Your task to perform on an android device: toggle pop-ups in chrome Image 0: 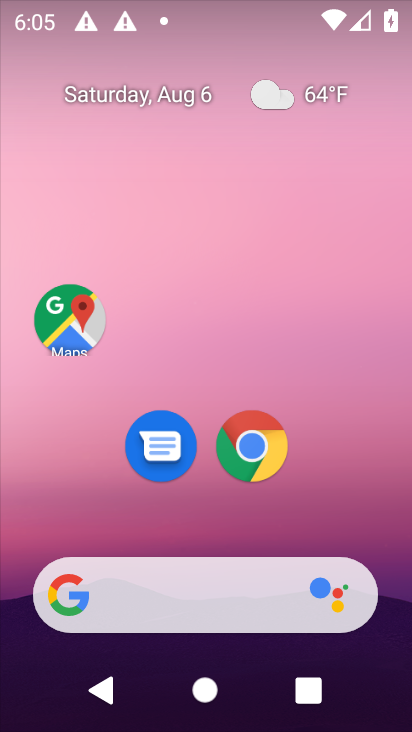
Step 0: click (255, 453)
Your task to perform on an android device: toggle pop-ups in chrome Image 1: 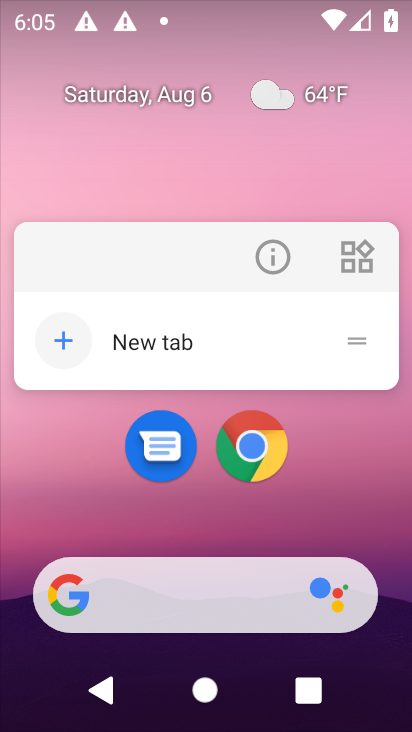
Step 1: click (258, 451)
Your task to perform on an android device: toggle pop-ups in chrome Image 2: 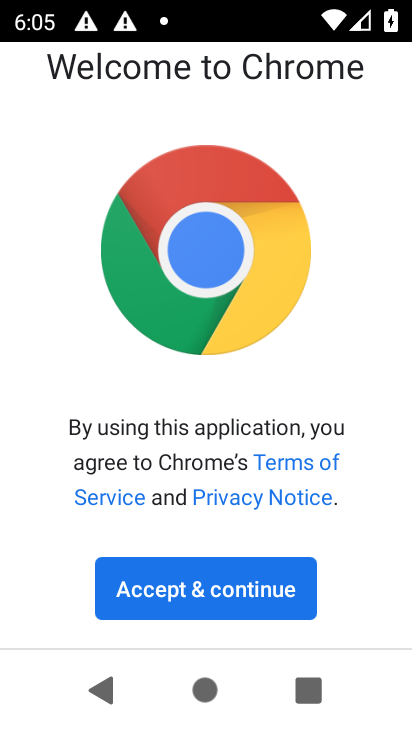
Step 2: click (193, 595)
Your task to perform on an android device: toggle pop-ups in chrome Image 3: 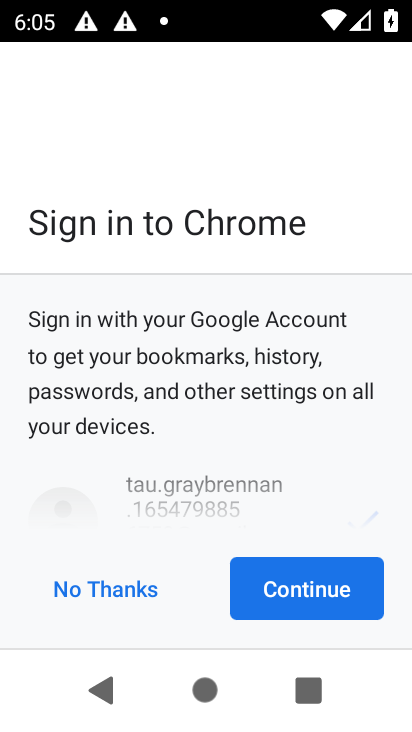
Step 3: click (293, 598)
Your task to perform on an android device: toggle pop-ups in chrome Image 4: 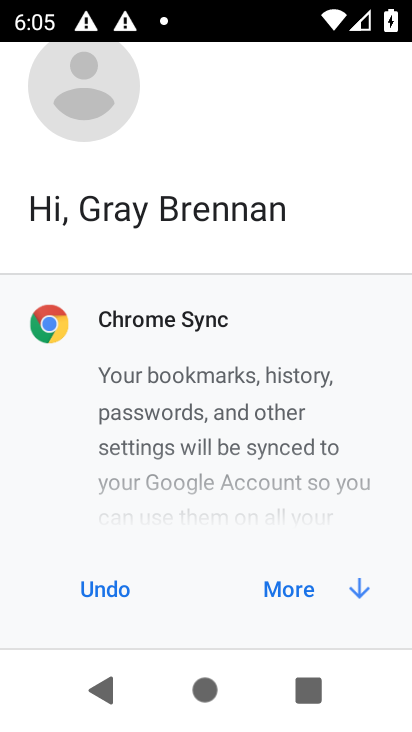
Step 4: click (300, 588)
Your task to perform on an android device: toggle pop-ups in chrome Image 5: 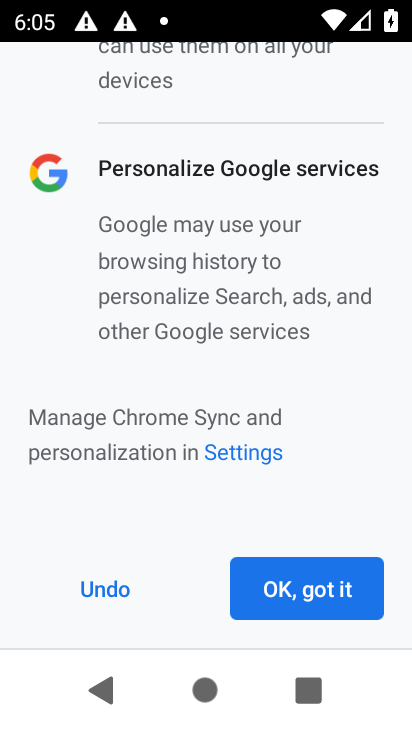
Step 5: click (279, 600)
Your task to perform on an android device: toggle pop-ups in chrome Image 6: 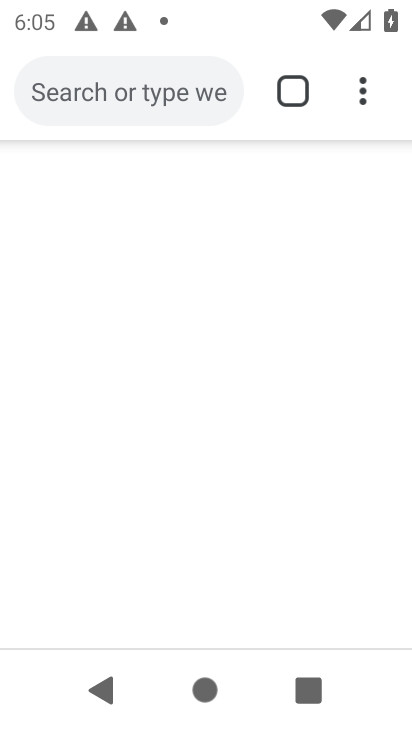
Step 6: drag from (360, 79) to (114, 468)
Your task to perform on an android device: toggle pop-ups in chrome Image 7: 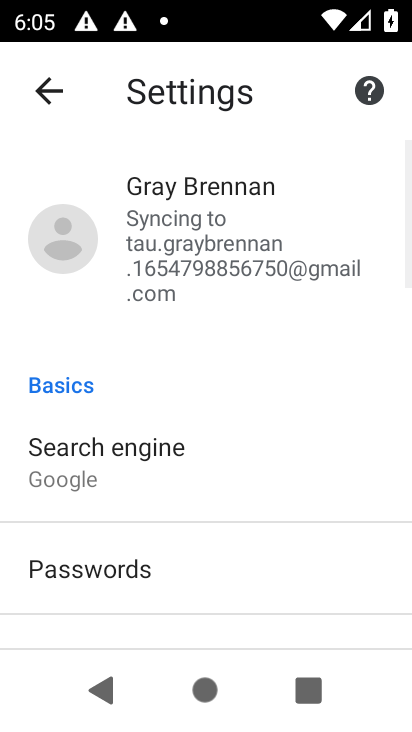
Step 7: drag from (186, 477) to (274, 80)
Your task to perform on an android device: toggle pop-ups in chrome Image 8: 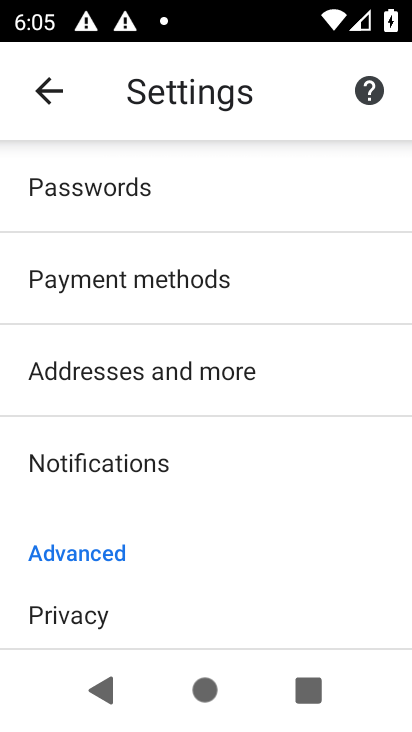
Step 8: drag from (152, 546) to (276, 100)
Your task to perform on an android device: toggle pop-ups in chrome Image 9: 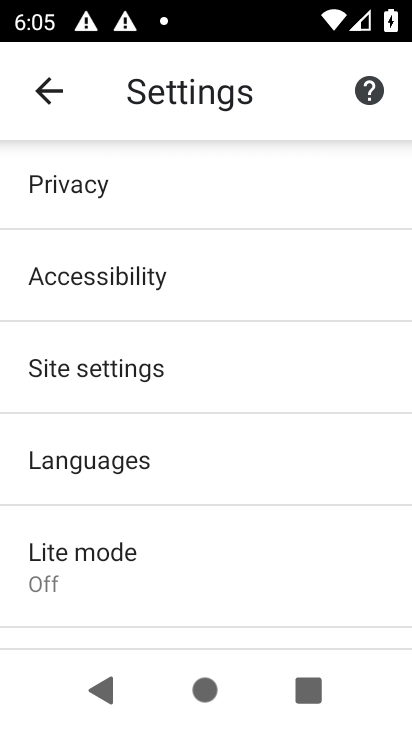
Step 9: click (125, 372)
Your task to perform on an android device: toggle pop-ups in chrome Image 10: 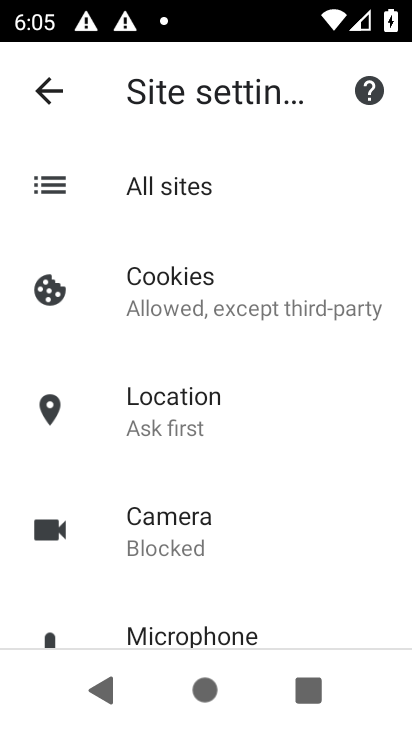
Step 10: drag from (181, 570) to (287, 56)
Your task to perform on an android device: toggle pop-ups in chrome Image 11: 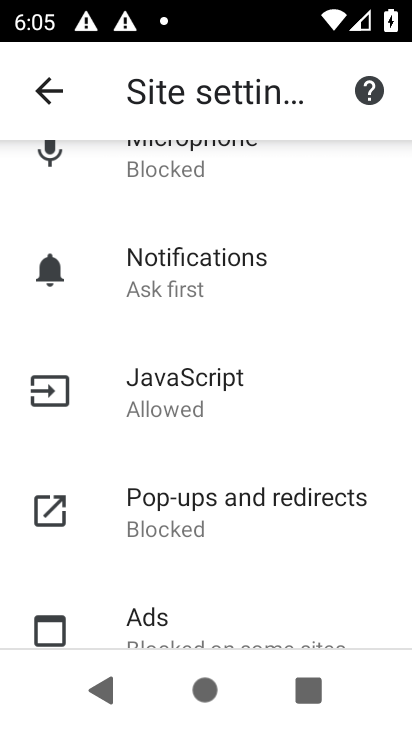
Step 11: click (152, 525)
Your task to perform on an android device: toggle pop-ups in chrome Image 12: 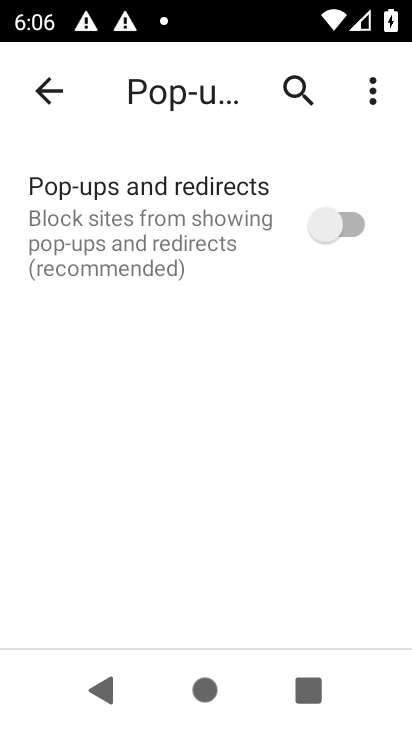
Step 12: click (325, 220)
Your task to perform on an android device: toggle pop-ups in chrome Image 13: 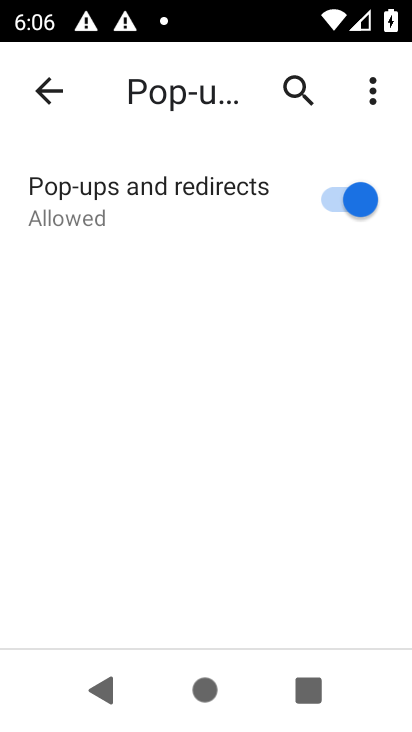
Step 13: task complete